Your task to perform on an android device: see tabs open on other devices in the chrome app Image 0: 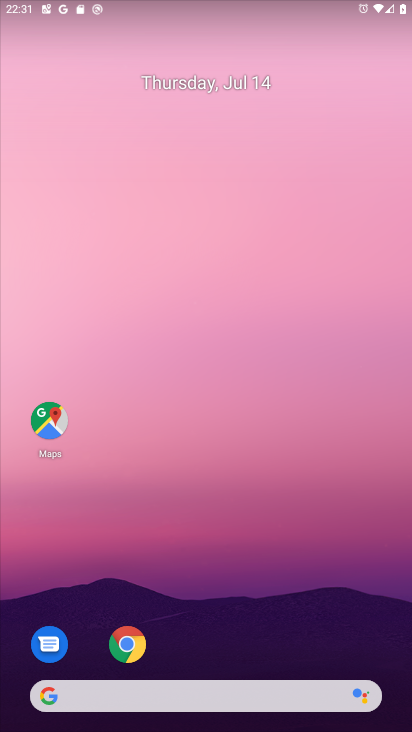
Step 0: click (134, 651)
Your task to perform on an android device: see tabs open on other devices in the chrome app Image 1: 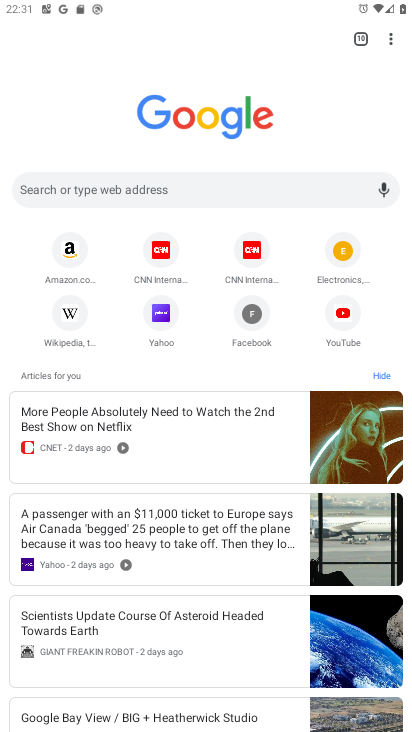
Step 1: click (402, 32)
Your task to perform on an android device: see tabs open on other devices in the chrome app Image 2: 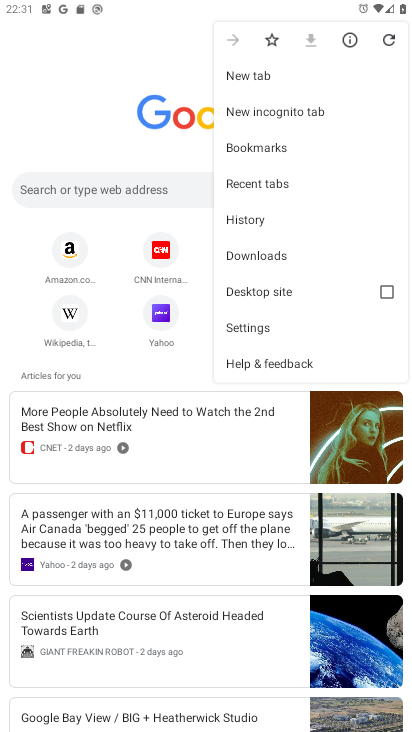
Step 2: click (278, 190)
Your task to perform on an android device: see tabs open on other devices in the chrome app Image 3: 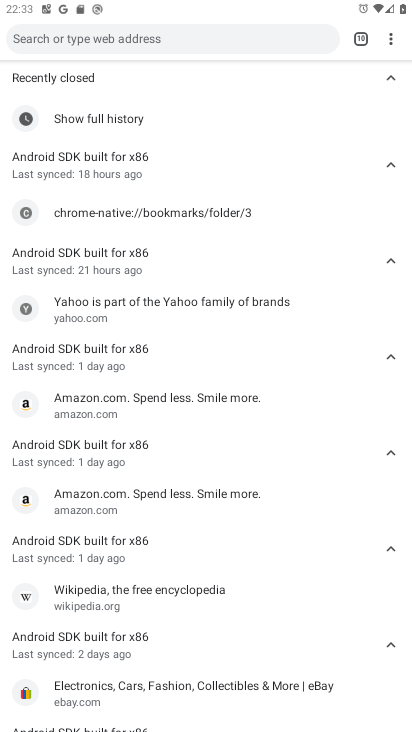
Step 3: task complete